Your task to perform on an android device: turn notification dots off Image 0: 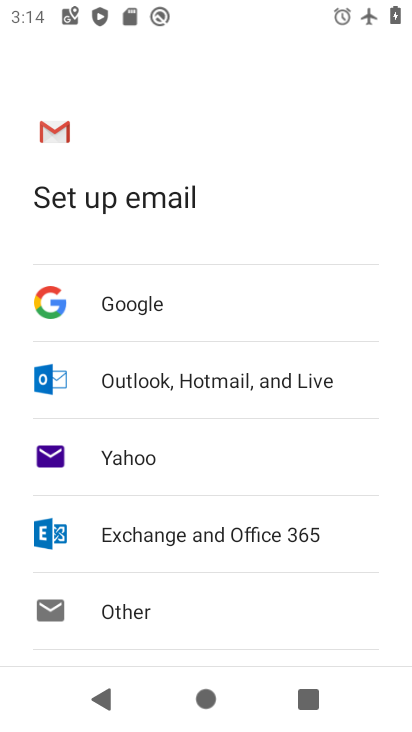
Step 0: press back button
Your task to perform on an android device: turn notification dots off Image 1: 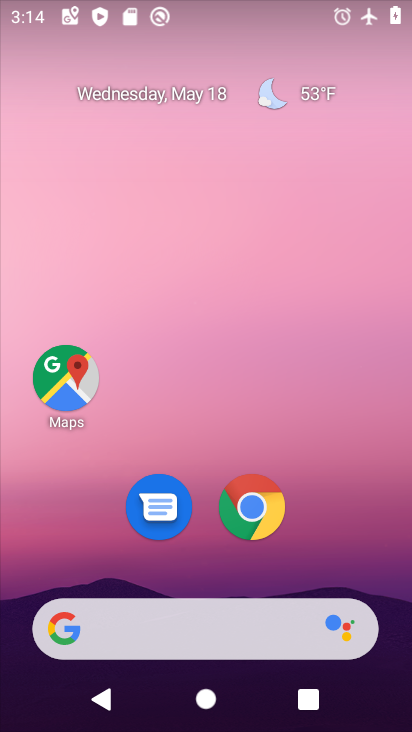
Step 1: drag from (336, 551) to (235, 51)
Your task to perform on an android device: turn notification dots off Image 2: 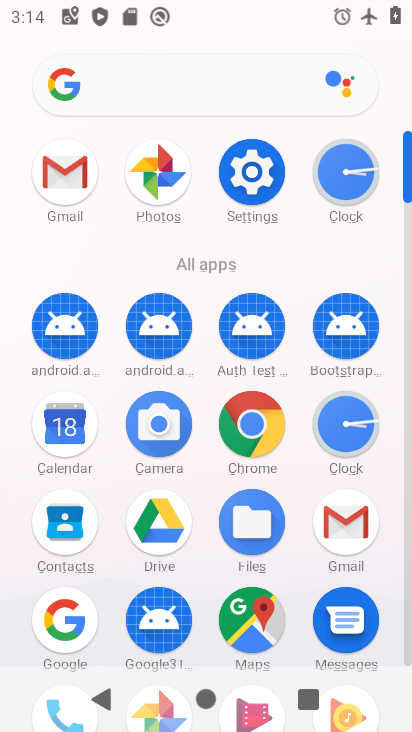
Step 2: click (251, 171)
Your task to perform on an android device: turn notification dots off Image 3: 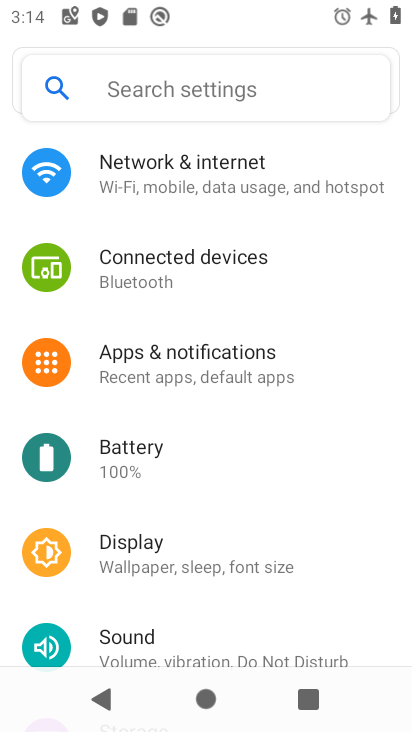
Step 3: drag from (184, 432) to (228, 291)
Your task to perform on an android device: turn notification dots off Image 4: 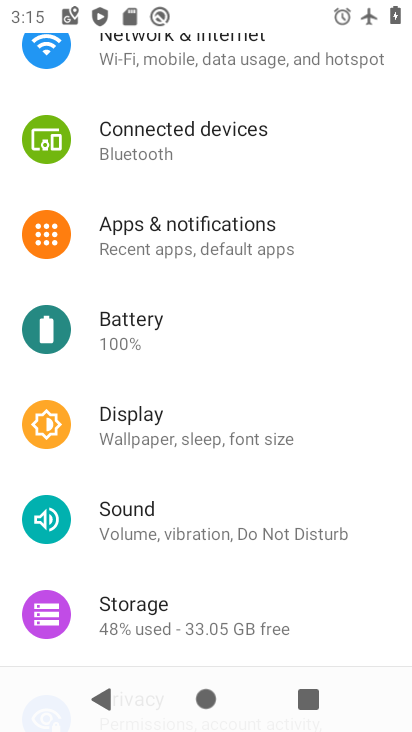
Step 4: click (222, 246)
Your task to perform on an android device: turn notification dots off Image 5: 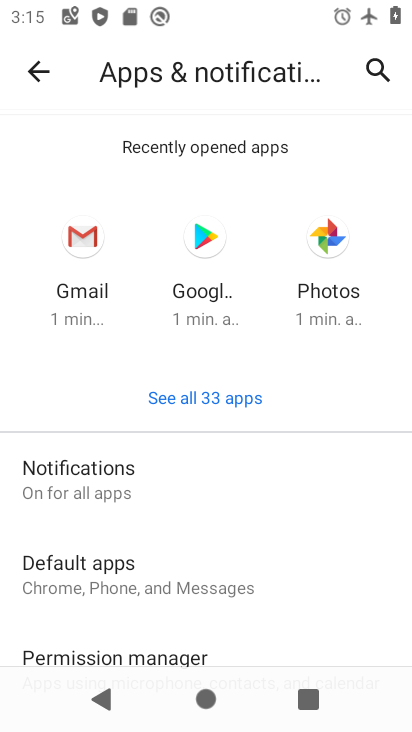
Step 5: click (109, 484)
Your task to perform on an android device: turn notification dots off Image 6: 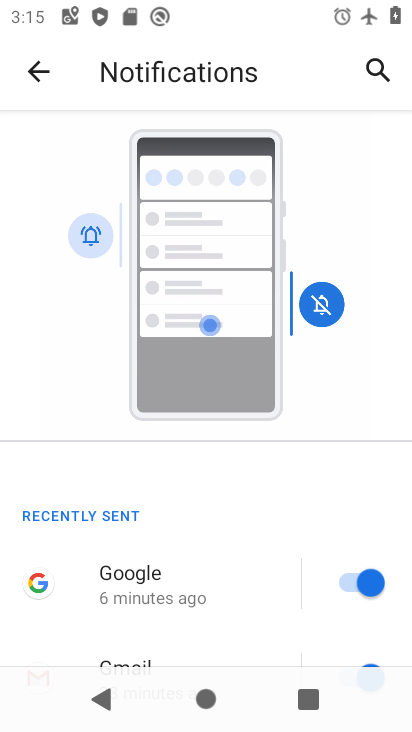
Step 6: drag from (181, 474) to (205, 391)
Your task to perform on an android device: turn notification dots off Image 7: 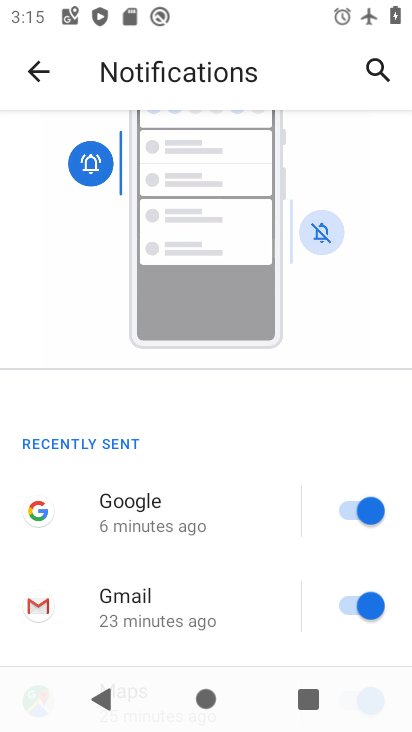
Step 7: drag from (240, 569) to (254, 447)
Your task to perform on an android device: turn notification dots off Image 8: 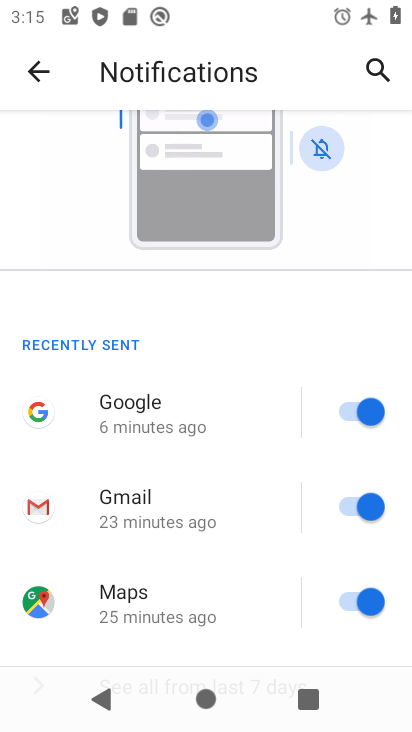
Step 8: drag from (189, 553) to (230, 428)
Your task to perform on an android device: turn notification dots off Image 9: 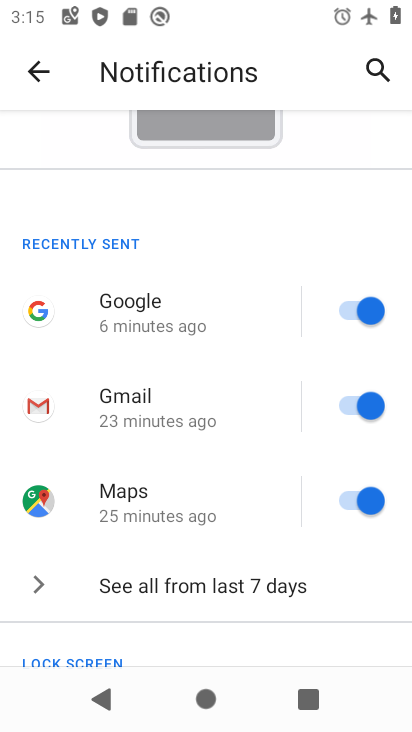
Step 9: drag from (183, 549) to (205, 399)
Your task to perform on an android device: turn notification dots off Image 10: 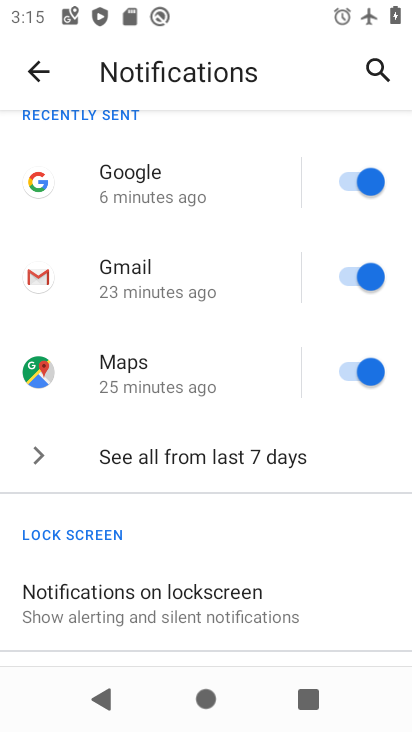
Step 10: drag from (157, 546) to (192, 442)
Your task to perform on an android device: turn notification dots off Image 11: 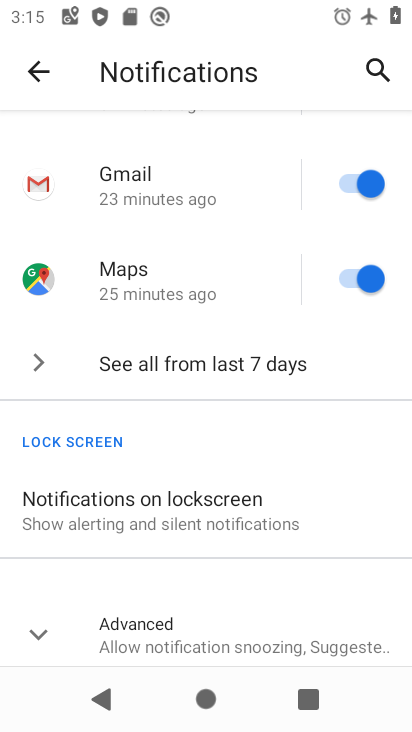
Step 11: drag from (164, 597) to (195, 493)
Your task to perform on an android device: turn notification dots off Image 12: 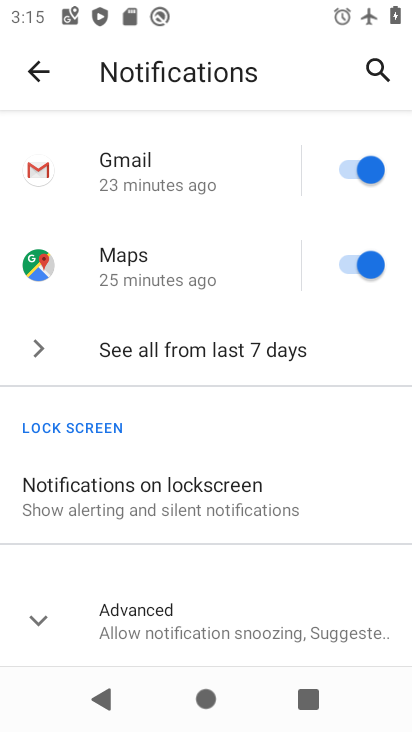
Step 12: click (159, 620)
Your task to perform on an android device: turn notification dots off Image 13: 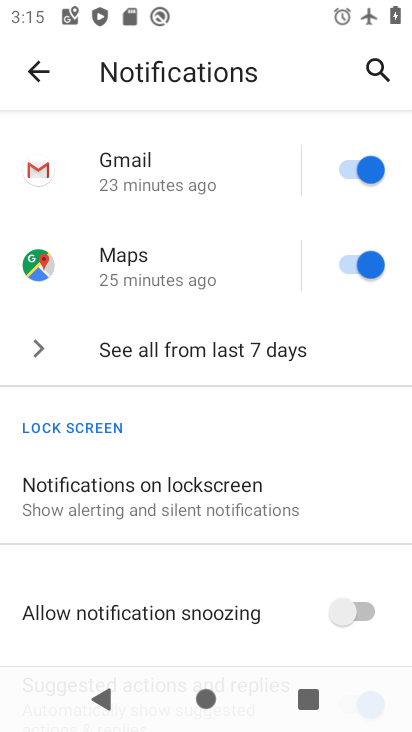
Step 13: drag from (224, 606) to (267, 451)
Your task to perform on an android device: turn notification dots off Image 14: 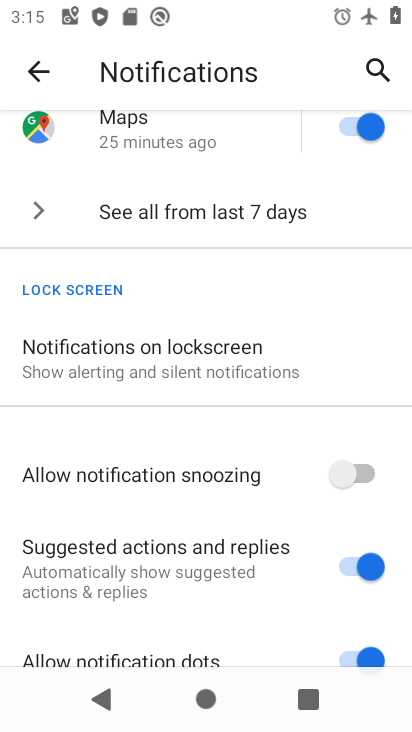
Step 14: drag from (203, 625) to (260, 472)
Your task to perform on an android device: turn notification dots off Image 15: 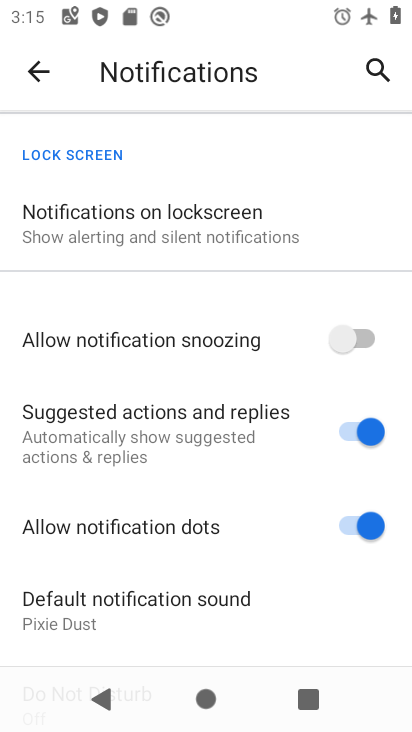
Step 15: click (353, 524)
Your task to perform on an android device: turn notification dots off Image 16: 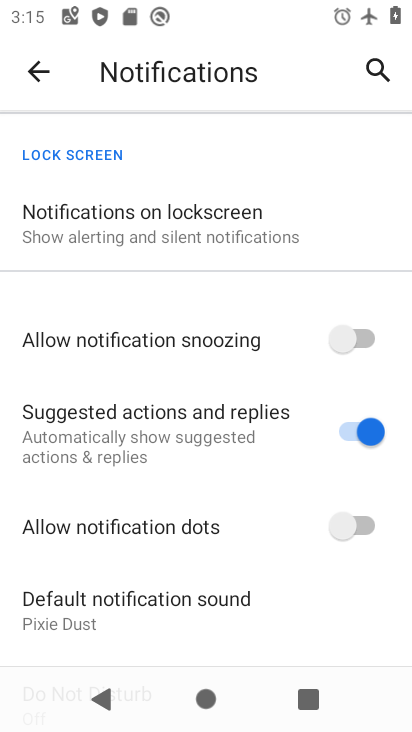
Step 16: task complete